Your task to perform on an android device: Open battery settings Image 0: 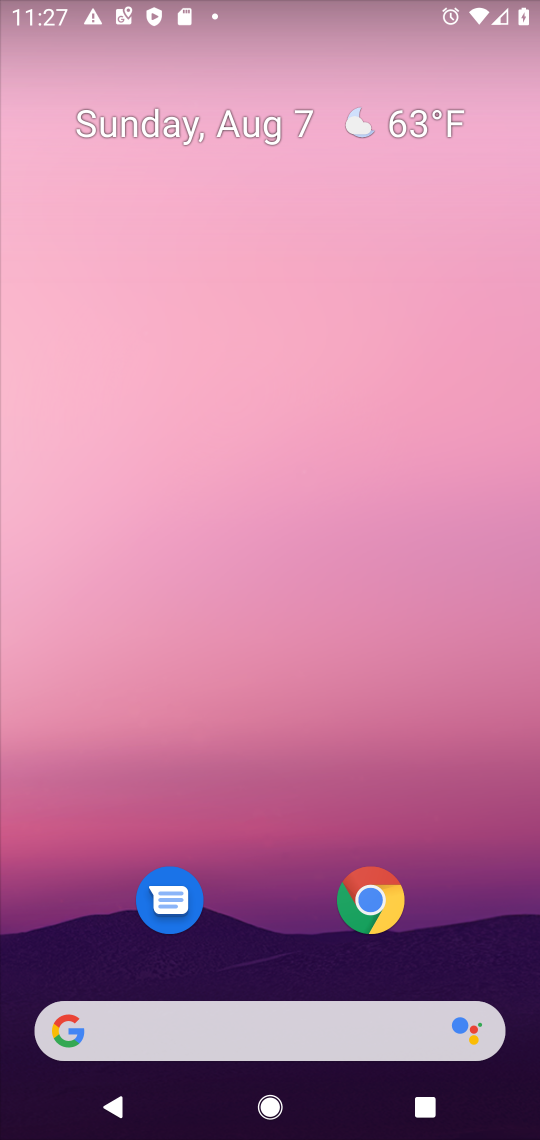
Step 0: drag from (274, 949) to (280, 144)
Your task to perform on an android device: Open battery settings Image 1: 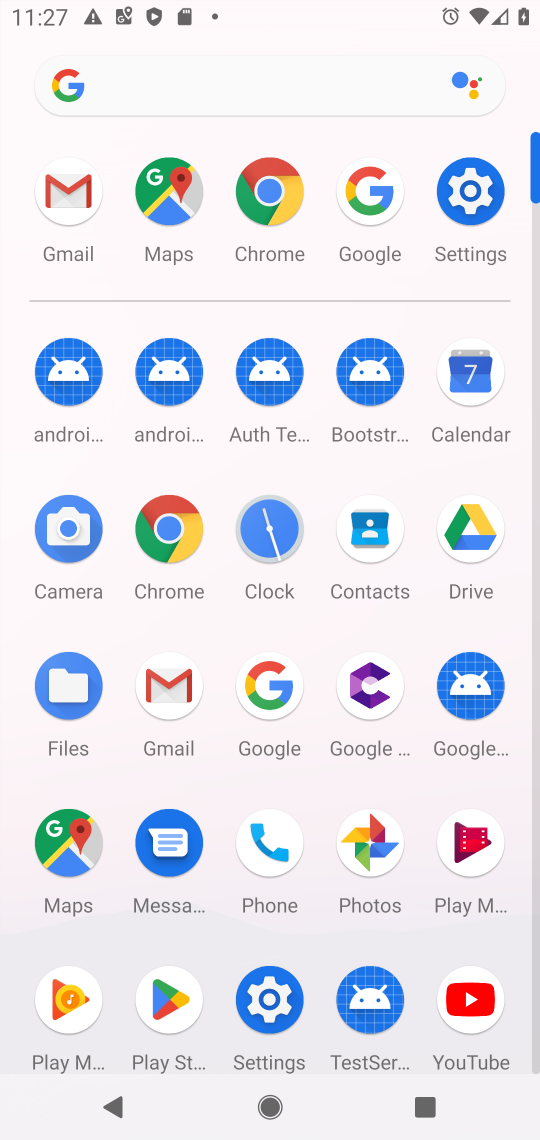
Step 1: click (470, 185)
Your task to perform on an android device: Open battery settings Image 2: 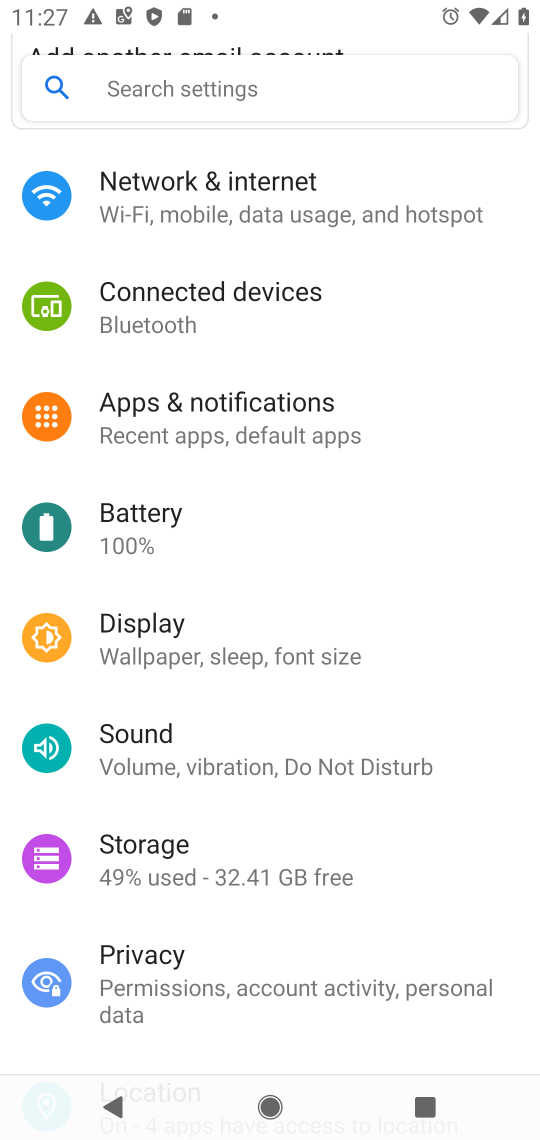
Step 2: click (196, 519)
Your task to perform on an android device: Open battery settings Image 3: 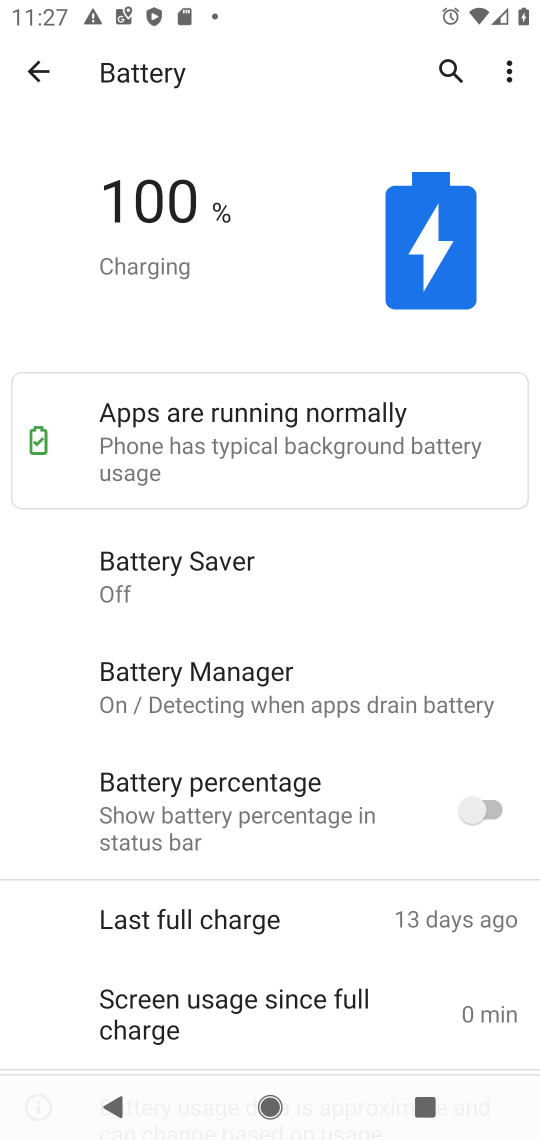
Step 3: task complete